Your task to perform on an android device: see creations saved in the google photos Image 0: 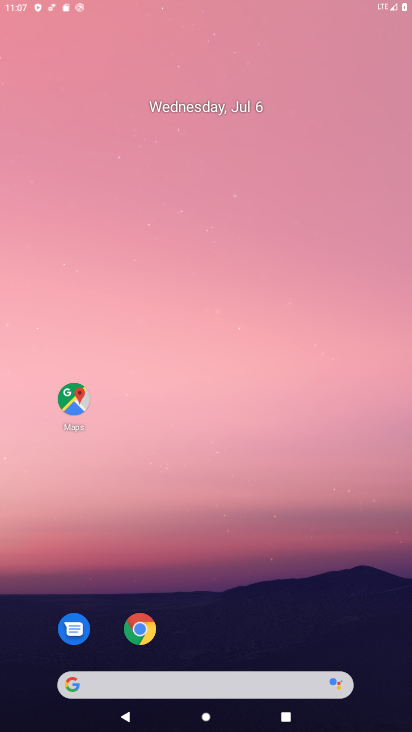
Step 0: click (250, 128)
Your task to perform on an android device: see creations saved in the google photos Image 1: 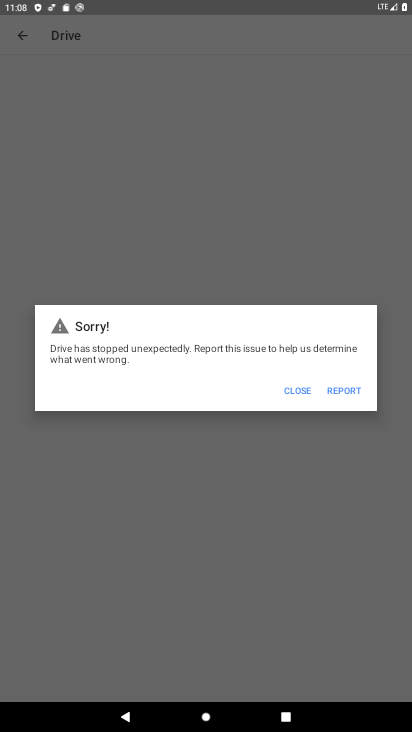
Step 1: press home button
Your task to perform on an android device: see creations saved in the google photos Image 2: 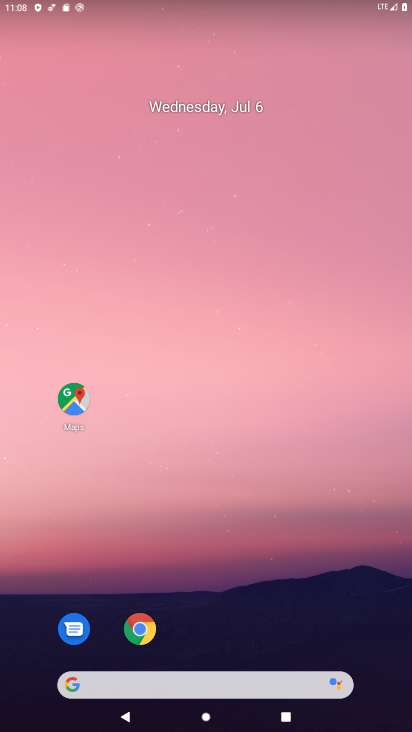
Step 2: drag from (224, 449) to (246, 151)
Your task to perform on an android device: see creations saved in the google photos Image 3: 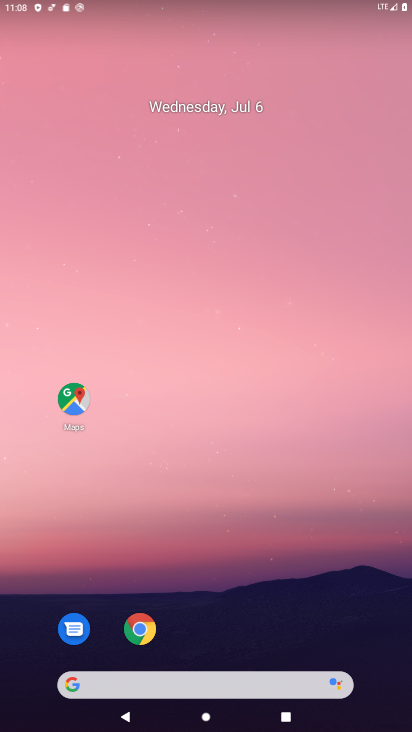
Step 3: drag from (207, 629) to (211, 114)
Your task to perform on an android device: see creations saved in the google photos Image 4: 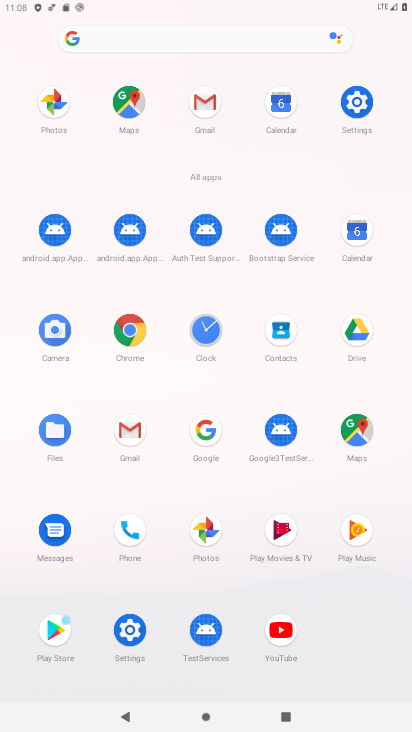
Step 4: click (46, 113)
Your task to perform on an android device: see creations saved in the google photos Image 5: 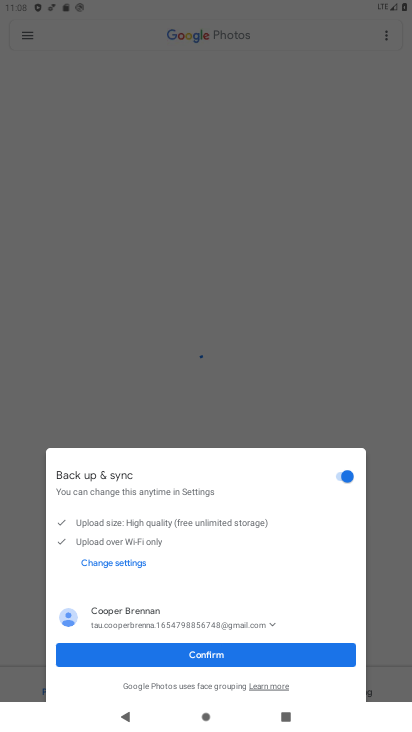
Step 5: click (203, 644)
Your task to perform on an android device: see creations saved in the google photos Image 6: 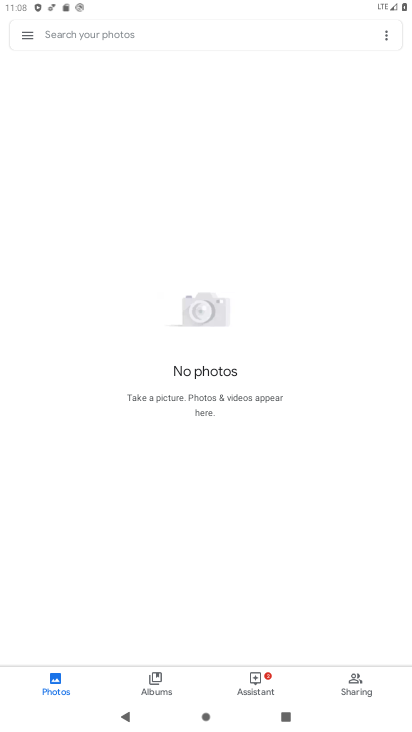
Step 6: click (193, 30)
Your task to perform on an android device: see creations saved in the google photos Image 7: 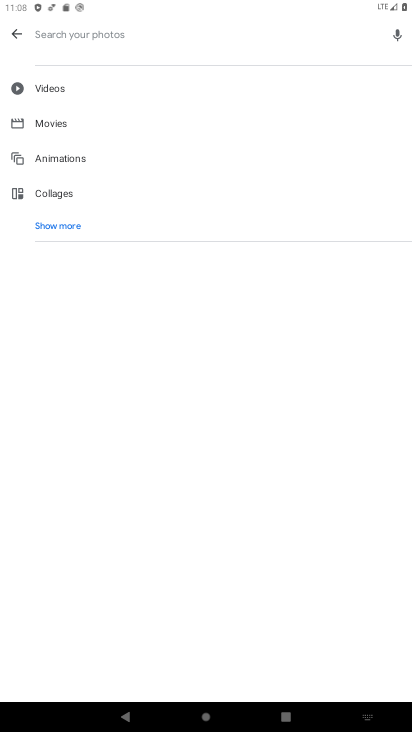
Step 7: click (66, 219)
Your task to perform on an android device: see creations saved in the google photos Image 8: 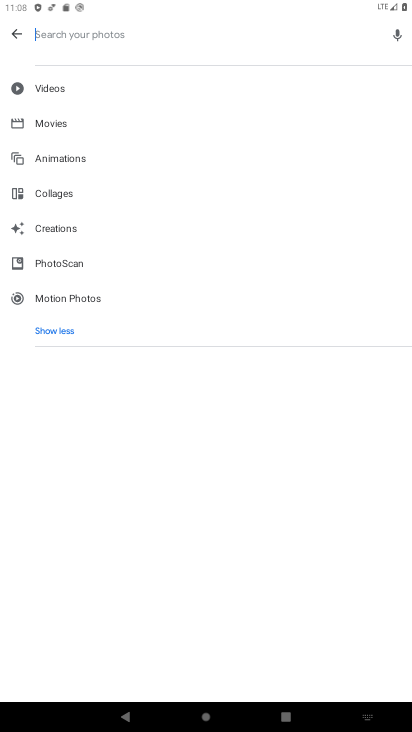
Step 8: click (60, 227)
Your task to perform on an android device: see creations saved in the google photos Image 9: 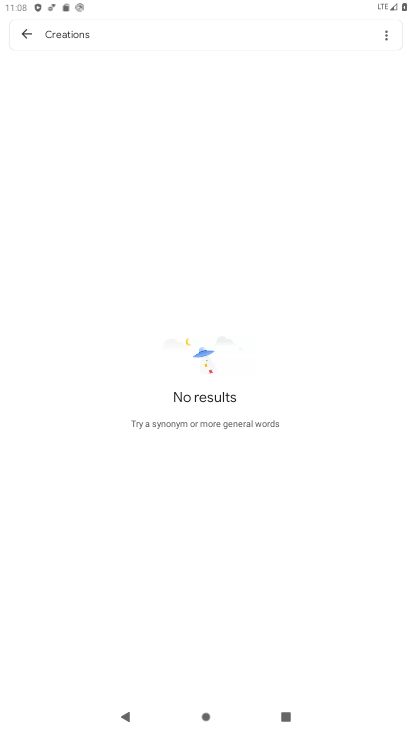
Step 9: task complete